Your task to perform on an android device: change the upload size in google photos Image 0: 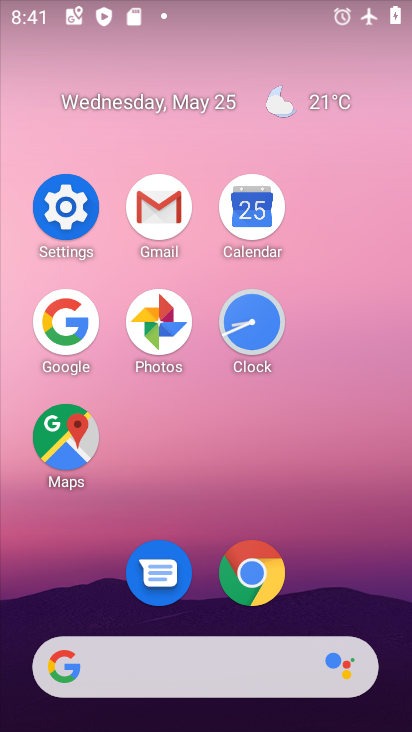
Step 0: click (165, 332)
Your task to perform on an android device: change the upload size in google photos Image 1: 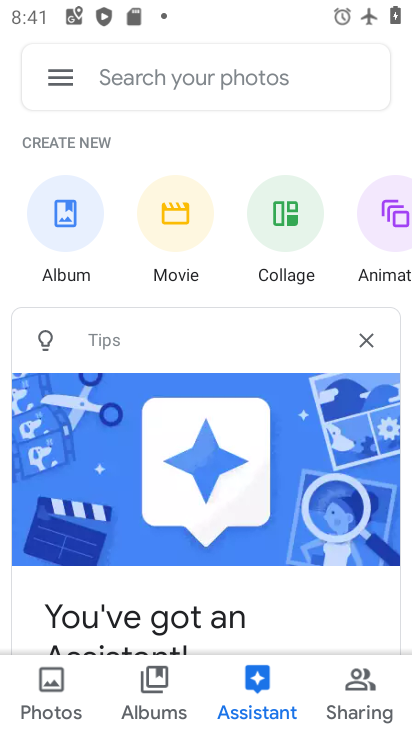
Step 1: click (51, 67)
Your task to perform on an android device: change the upload size in google photos Image 2: 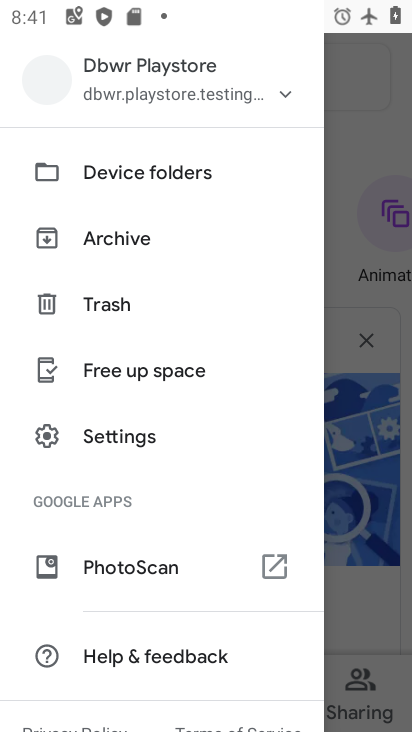
Step 2: click (160, 411)
Your task to perform on an android device: change the upload size in google photos Image 3: 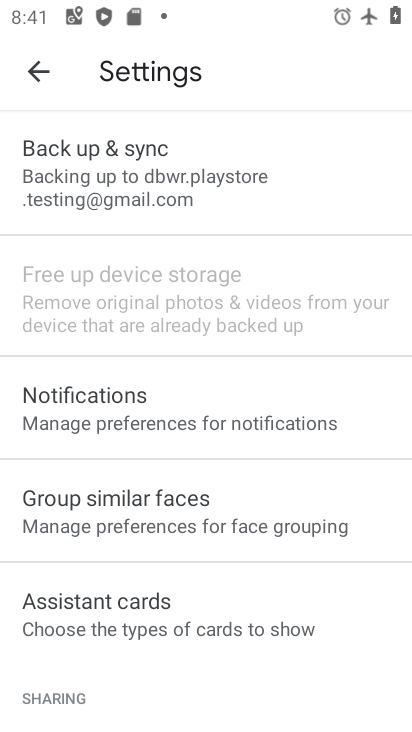
Step 3: click (182, 194)
Your task to perform on an android device: change the upload size in google photos Image 4: 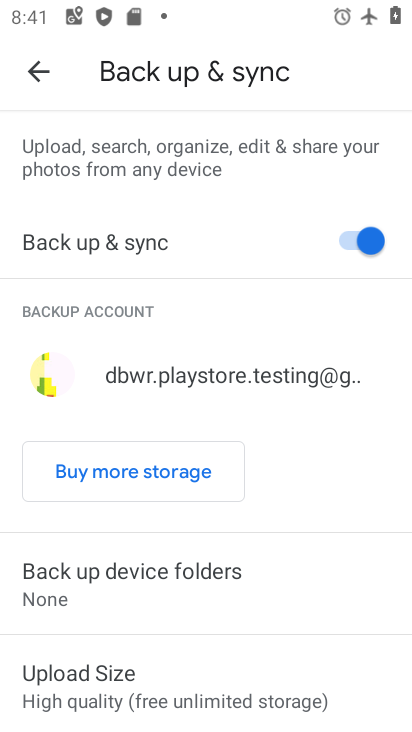
Step 4: click (256, 649)
Your task to perform on an android device: change the upload size in google photos Image 5: 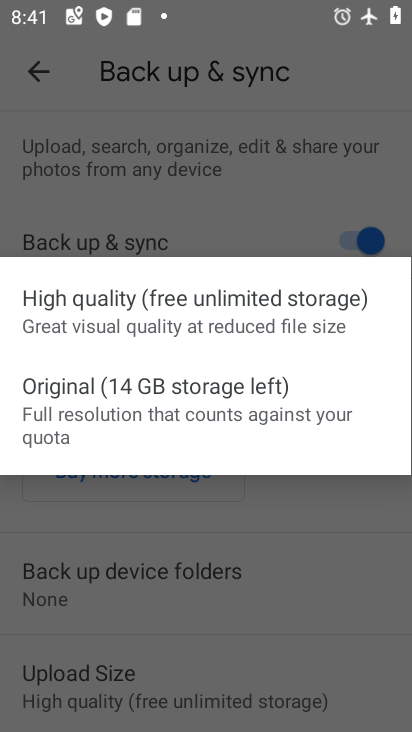
Step 5: click (254, 400)
Your task to perform on an android device: change the upload size in google photos Image 6: 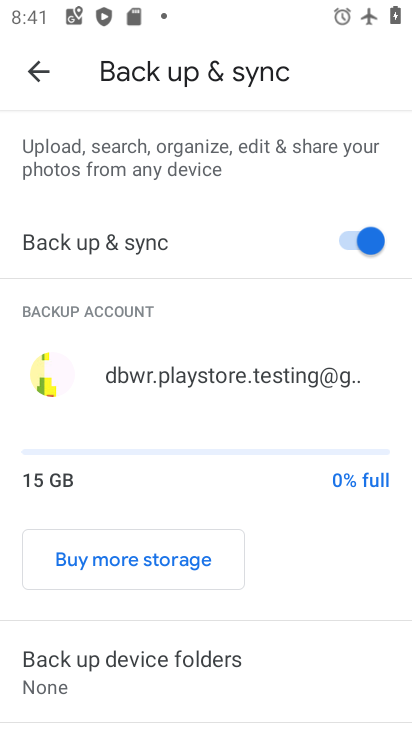
Step 6: task complete